Your task to perform on an android device: Open Google Chrome and open the bookmarks view Image 0: 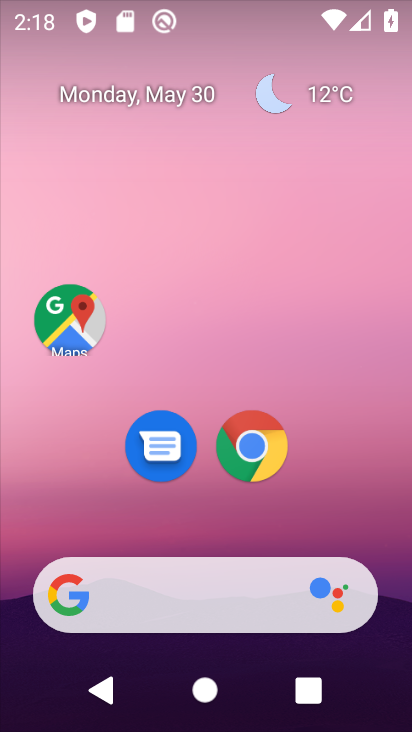
Step 0: click (251, 445)
Your task to perform on an android device: Open Google Chrome and open the bookmarks view Image 1: 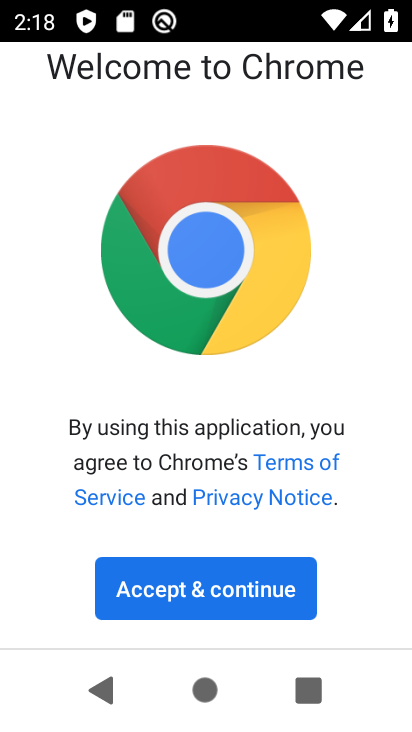
Step 1: click (187, 592)
Your task to perform on an android device: Open Google Chrome and open the bookmarks view Image 2: 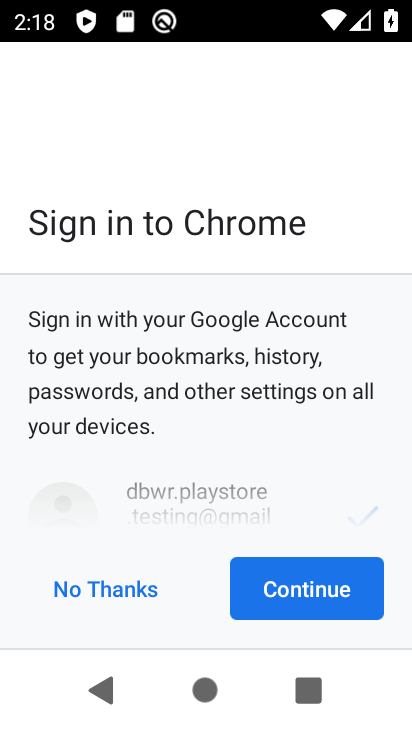
Step 2: click (317, 601)
Your task to perform on an android device: Open Google Chrome and open the bookmarks view Image 3: 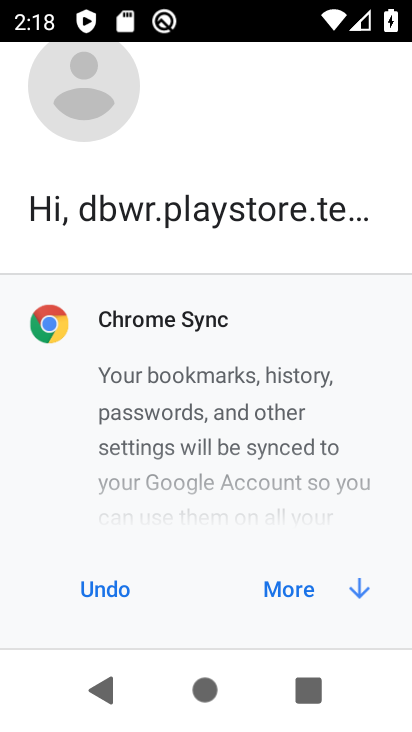
Step 3: click (287, 593)
Your task to perform on an android device: Open Google Chrome and open the bookmarks view Image 4: 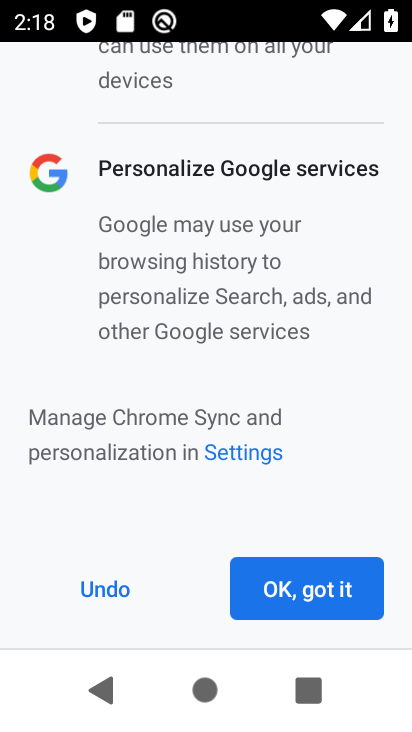
Step 4: click (287, 593)
Your task to perform on an android device: Open Google Chrome and open the bookmarks view Image 5: 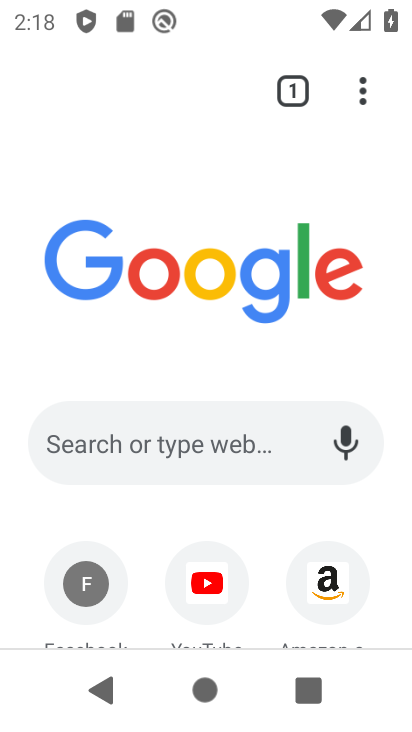
Step 5: click (362, 91)
Your task to perform on an android device: Open Google Chrome and open the bookmarks view Image 6: 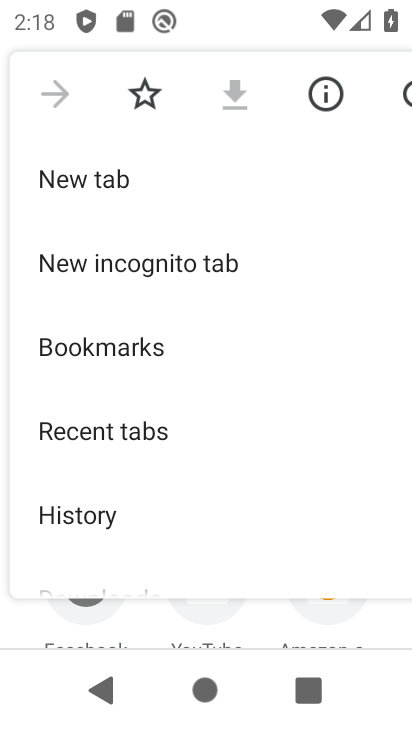
Step 6: drag from (107, 471) to (122, 328)
Your task to perform on an android device: Open Google Chrome and open the bookmarks view Image 7: 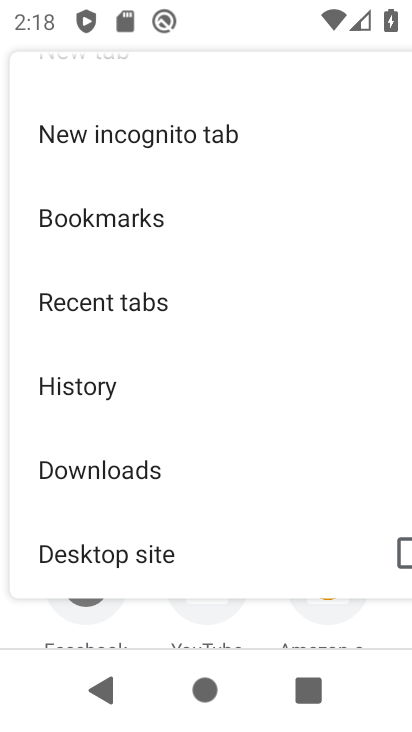
Step 7: drag from (124, 428) to (129, 277)
Your task to perform on an android device: Open Google Chrome and open the bookmarks view Image 8: 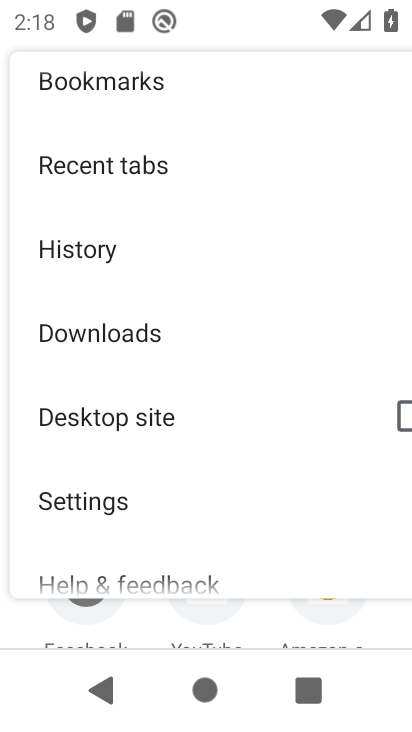
Step 8: click (118, 87)
Your task to perform on an android device: Open Google Chrome and open the bookmarks view Image 9: 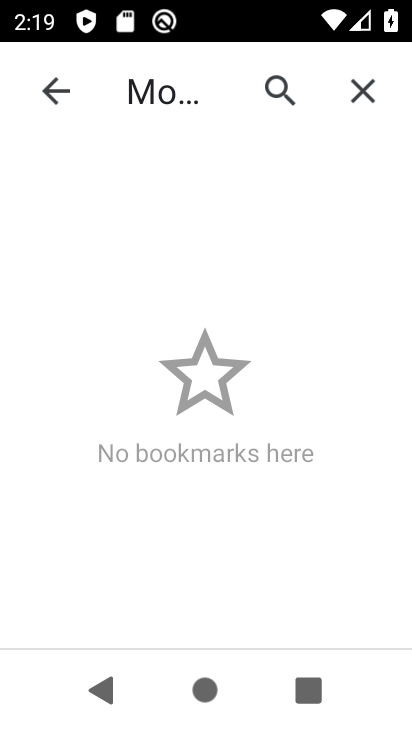
Step 9: task complete